Your task to perform on an android device: Open location settings Image 0: 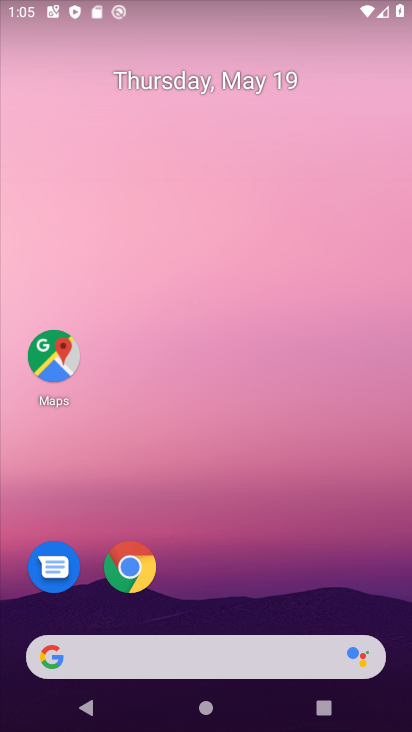
Step 0: drag from (29, 596) to (259, 153)
Your task to perform on an android device: Open location settings Image 1: 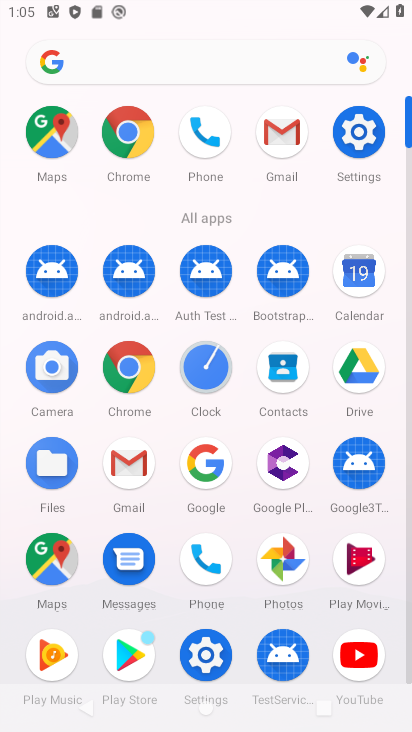
Step 1: click (354, 129)
Your task to perform on an android device: Open location settings Image 2: 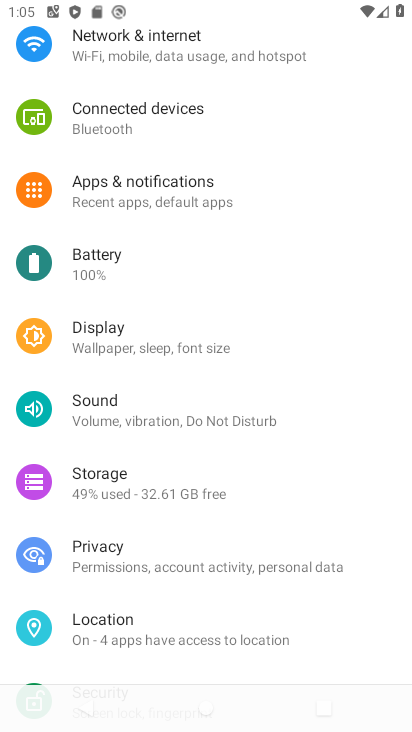
Step 2: click (94, 622)
Your task to perform on an android device: Open location settings Image 3: 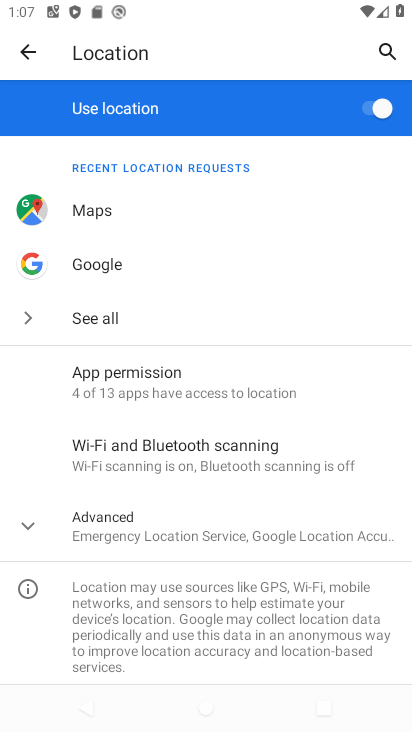
Step 3: click (248, 536)
Your task to perform on an android device: Open location settings Image 4: 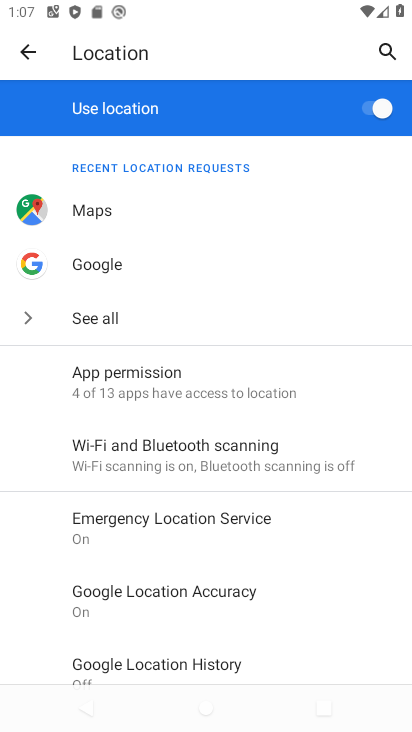
Step 4: task complete